Your task to perform on an android device: Open notification settings Image 0: 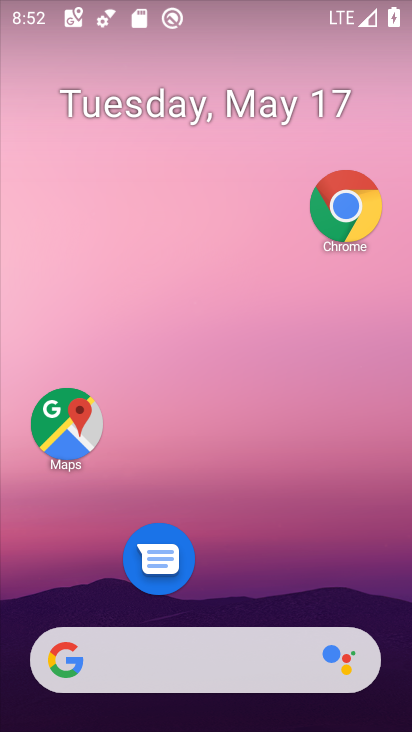
Step 0: drag from (276, 641) to (338, 79)
Your task to perform on an android device: Open notification settings Image 1: 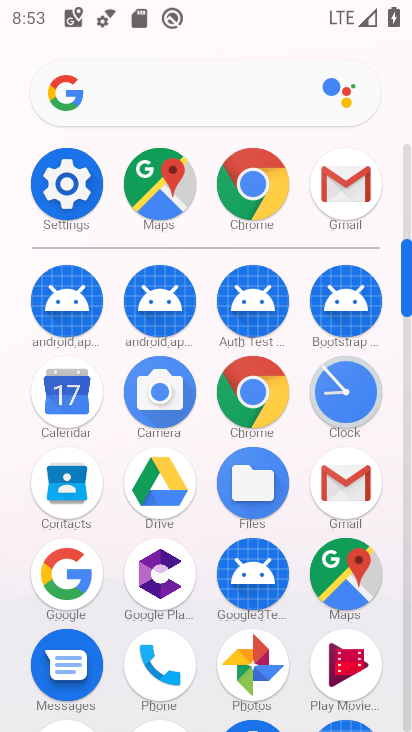
Step 1: click (80, 203)
Your task to perform on an android device: Open notification settings Image 2: 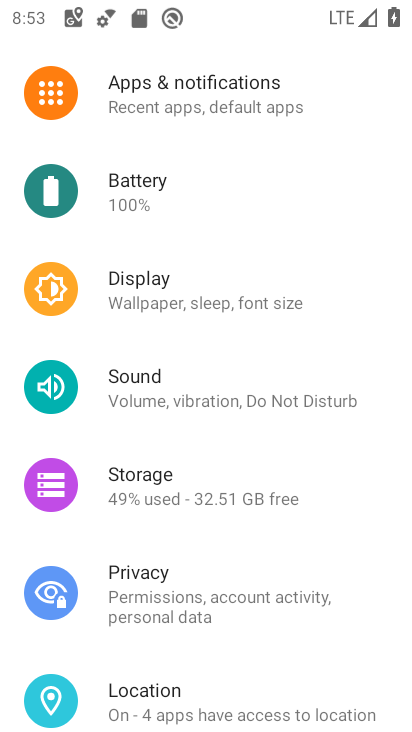
Step 2: click (230, 97)
Your task to perform on an android device: Open notification settings Image 3: 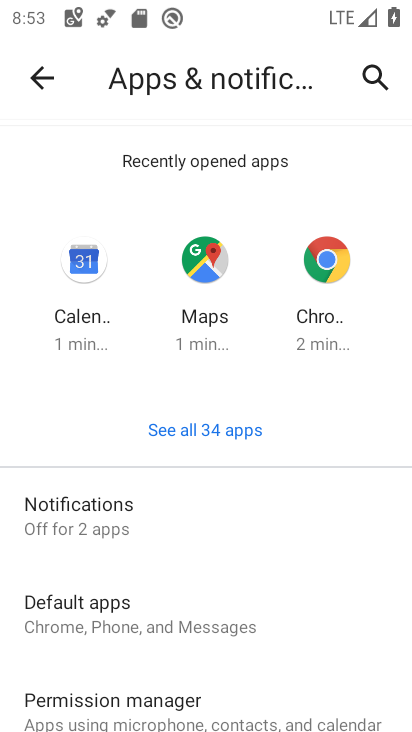
Step 3: click (179, 522)
Your task to perform on an android device: Open notification settings Image 4: 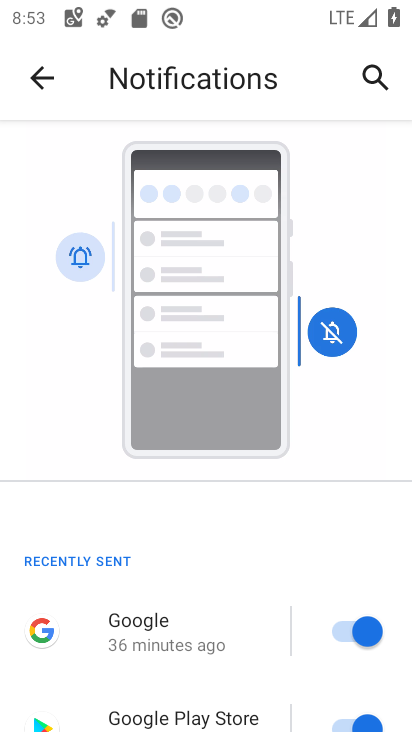
Step 4: task complete